Your task to perform on an android device: turn off location history Image 0: 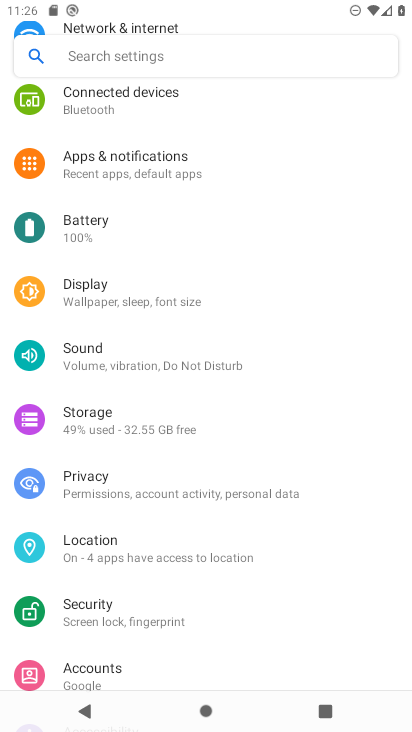
Step 0: press home button
Your task to perform on an android device: turn off location history Image 1: 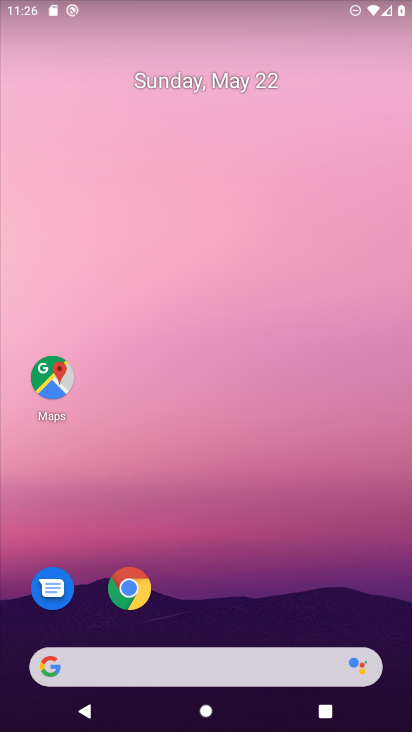
Step 1: drag from (164, 638) to (172, 265)
Your task to perform on an android device: turn off location history Image 2: 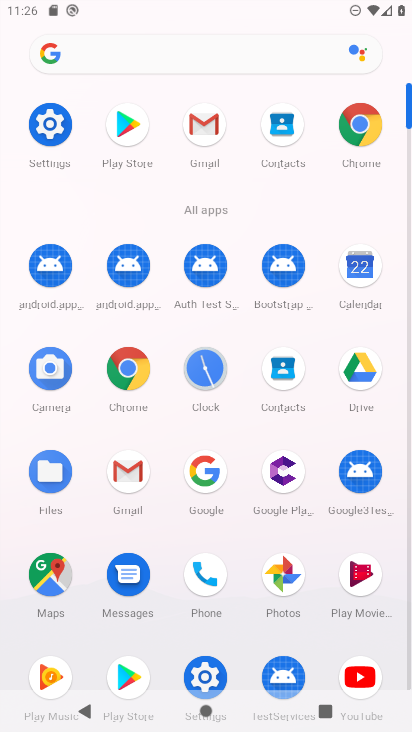
Step 2: click (53, 127)
Your task to perform on an android device: turn off location history Image 3: 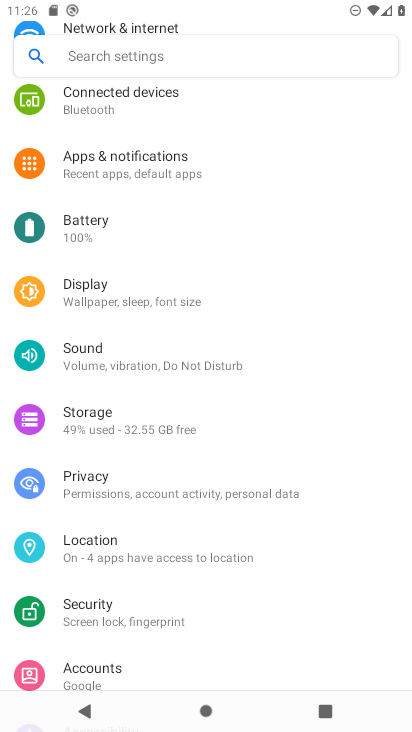
Step 3: click (128, 558)
Your task to perform on an android device: turn off location history Image 4: 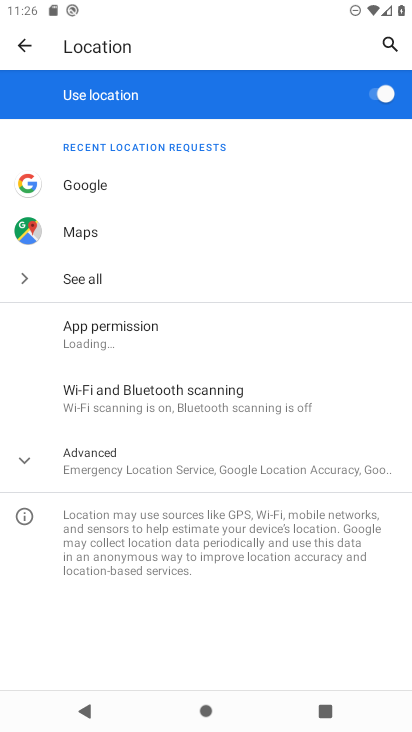
Step 4: click (115, 456)
Your task to perform on an android device: turn off location history Image 5: 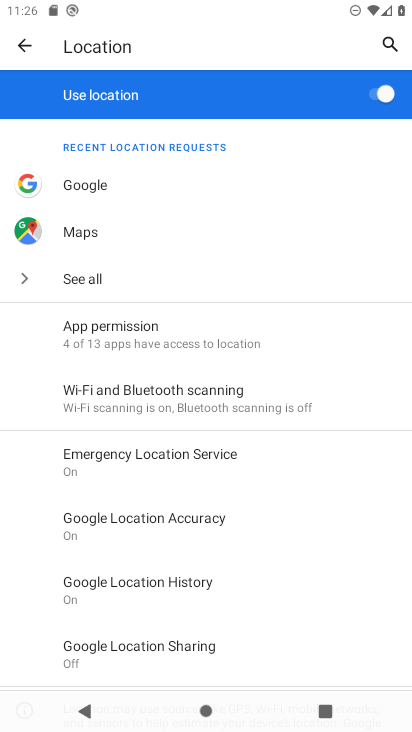
Step 5: click (179, 580)
Your task to perform on an android device: turn off location history Image 6: 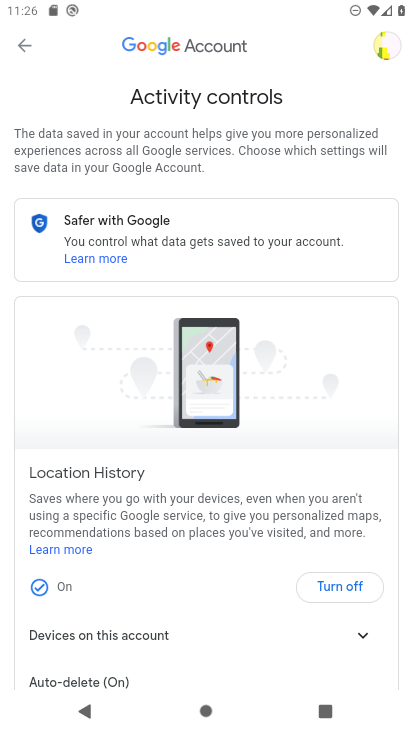
Step 6: click (352, 589)
Your task to perform on an android device: turn off location history Image 7: 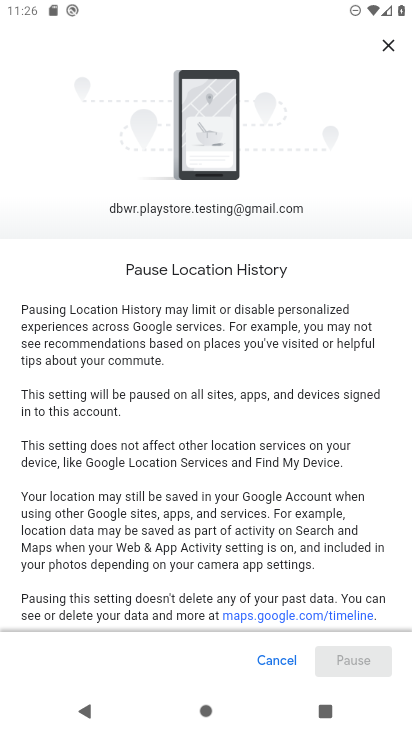
Step 7: drag from (357, 623) to (355, 467)
Your task to perform on an android device: turn off location history Image 8: 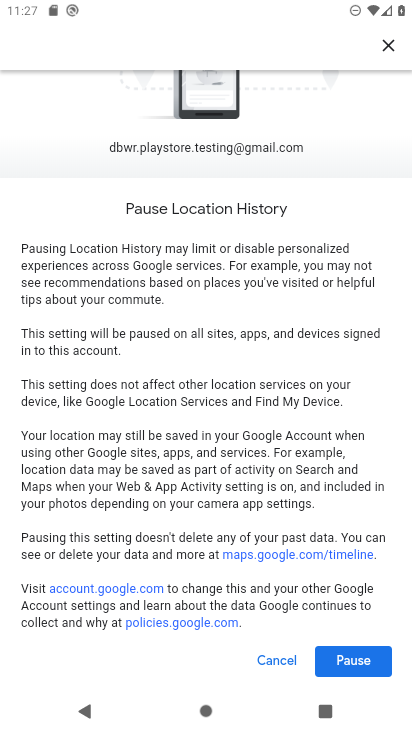
Step 8: click (357, 661)
Your task to perform on an android device: turn off location history Image 9: 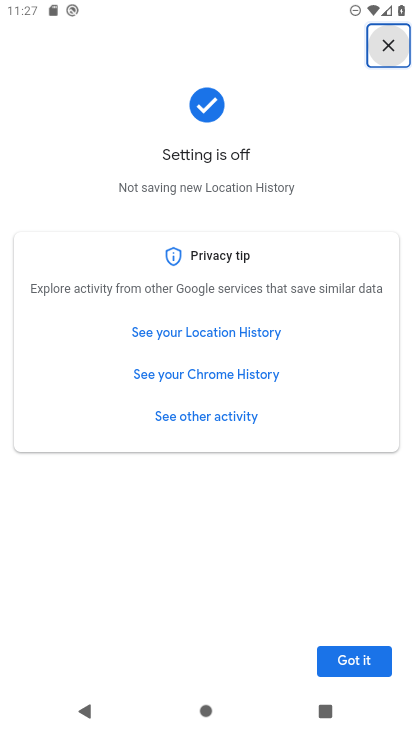
Step 9: click (349, 674)
Your task to perform on an android device: turn off location history Image 10: 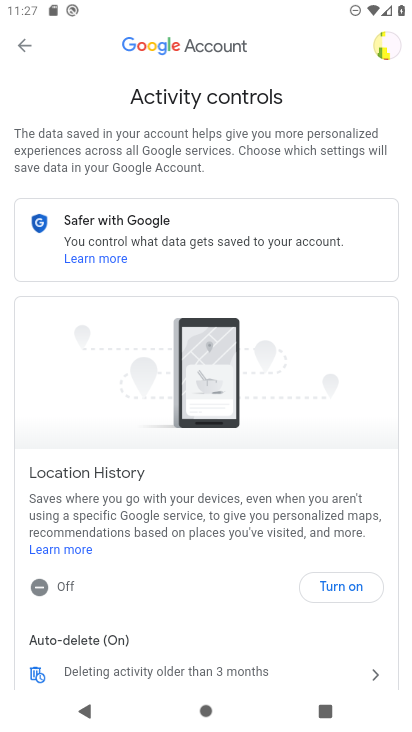
Step 10: task complete